Your task to perform on an android device: read, delete, or share a saved page in the chrome app Image 0: 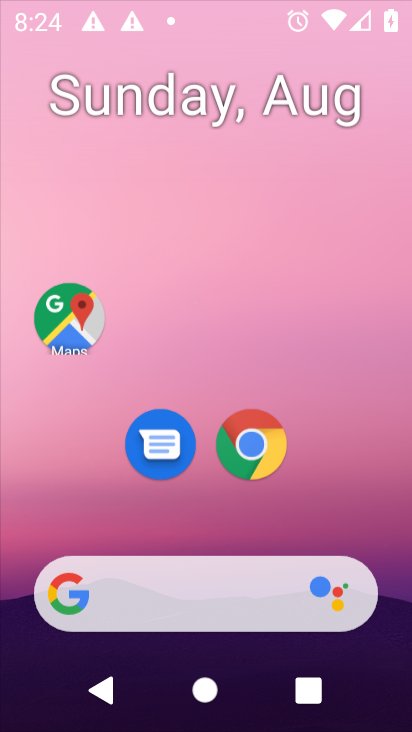
Step 0: press home button
Your task to perform on an android device: read, delete, or share a saved page in the chrome app Image 1: 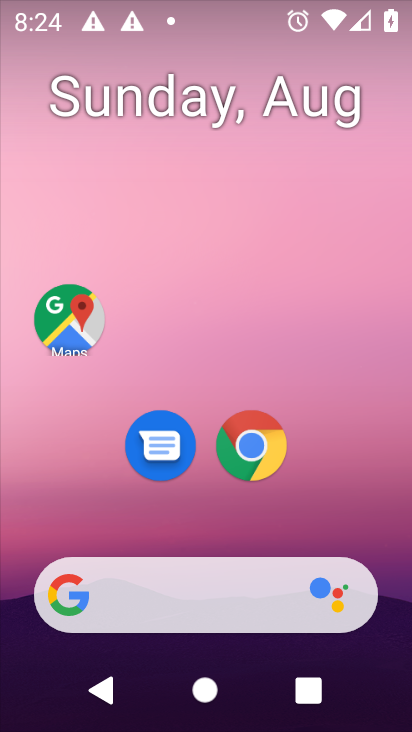
Step 1: click (248, 434)
Your task to perform on an android device: read, delete, or share a saved page in the chrome app Image 2: 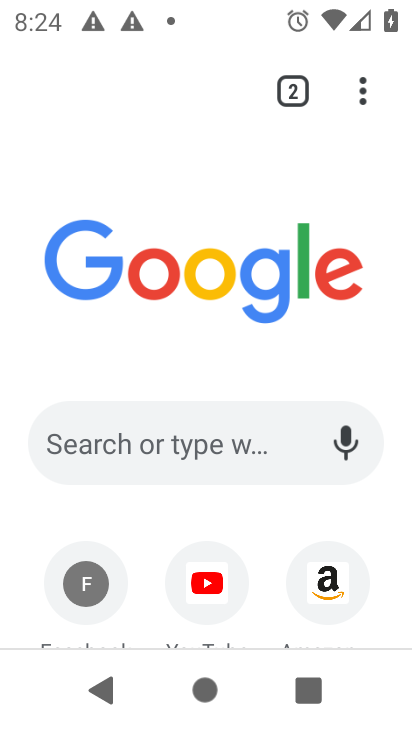
Step 2: click (362, 84)
Your task to perform on an android device: read, delete, or share a saved page in the chrome app Image 3: 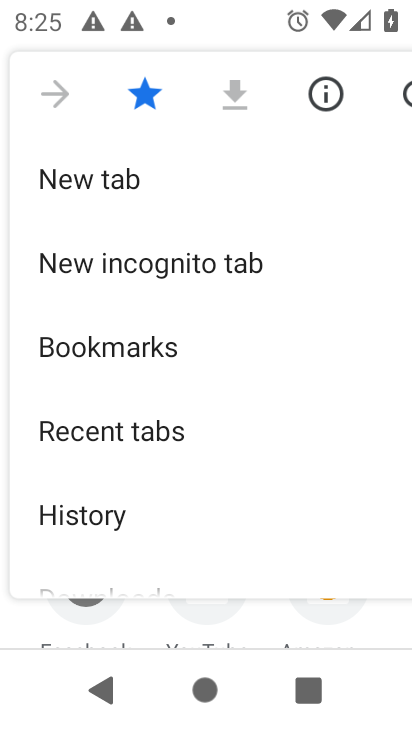
Step 3: drag from (153, 518) to (156, 213)
Your task to perform on an android device: read, delete, or share a saved page in the chrome app Image 4: 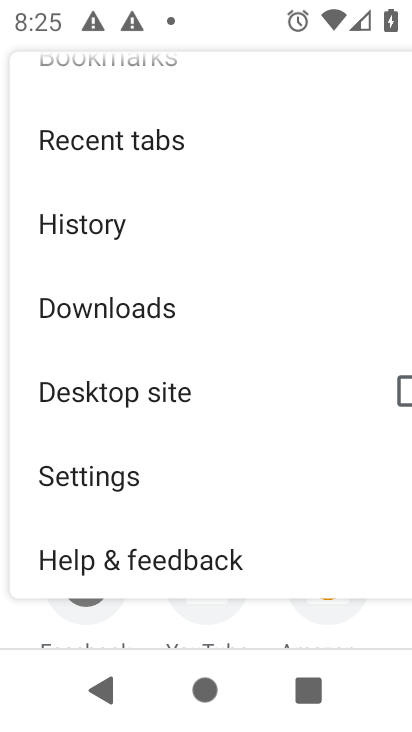
Step 4: click (191, 299)
Your task to perform on an android device: read, delete, or share a saved page in the chrome app Image 5: 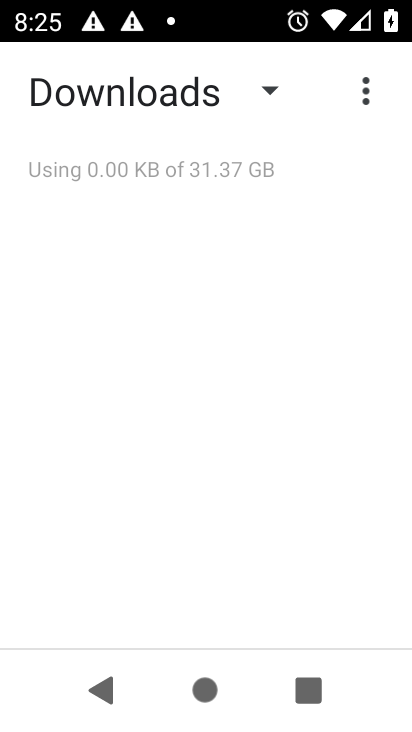
Step 5: task complete